Your task to perform on an android device: toggle airplane mode Image 0: 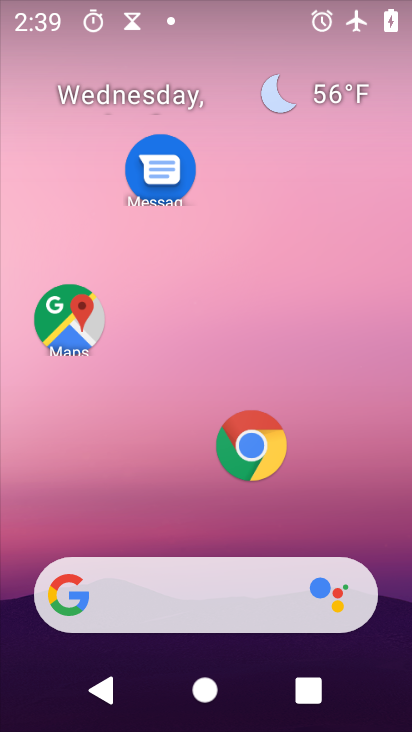
Step 0: drag from (228, 518) to (299, 155)
Your task to perform on an android device: toggle airplane mode Image 1: 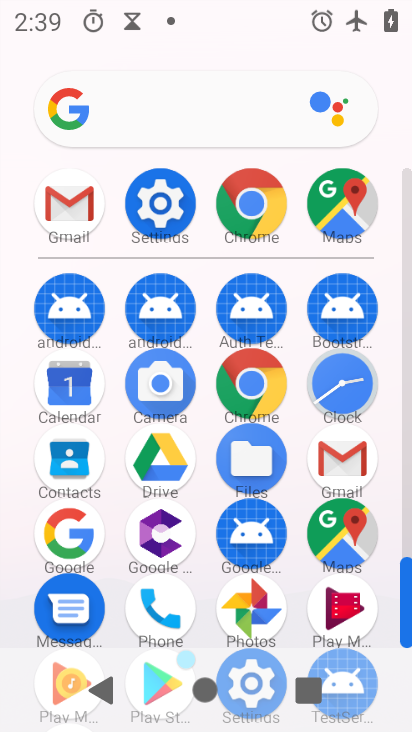
Step 1: drag from (204, 274) to (224, 49)
Your task to perform on an android device: toggle airplane mode Image 2: 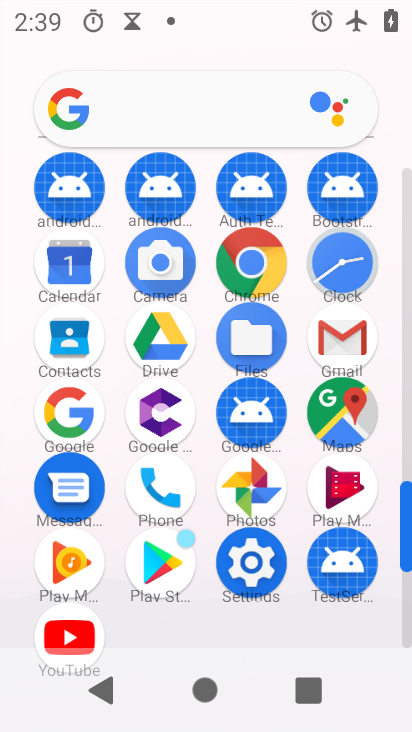
Step 2: click (257, 572)
Your task to perform on an android device: toggle airplane mode Image 3: 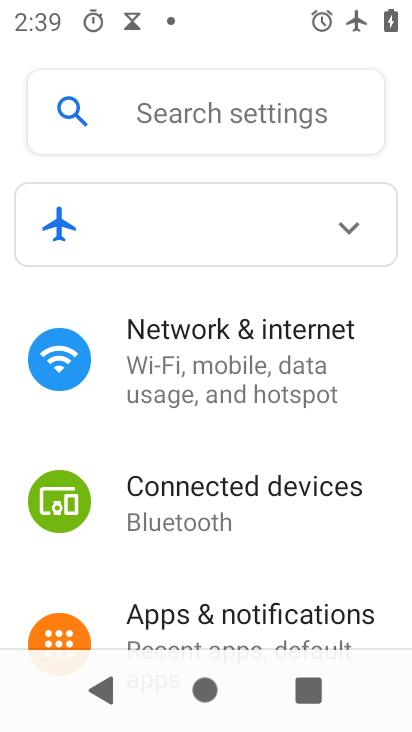
Step 3: click (267, 379)
Your task to perform on an android device: toggle airplane mode Image 4: 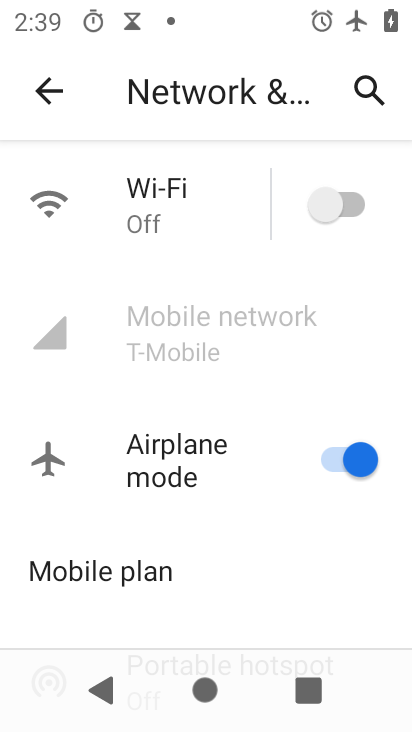
Step 4: click (343, 461)
Your task to perform on an android device: toggle airplane mode Image 5: 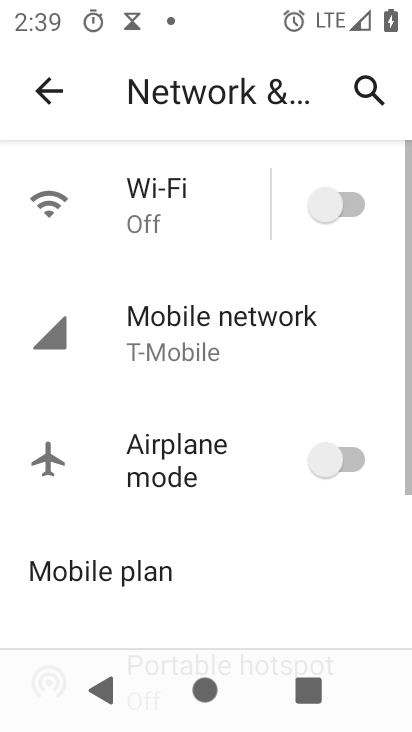
Step 5: task complete